Your task to perform on an android device: toggle wifi Image 0: 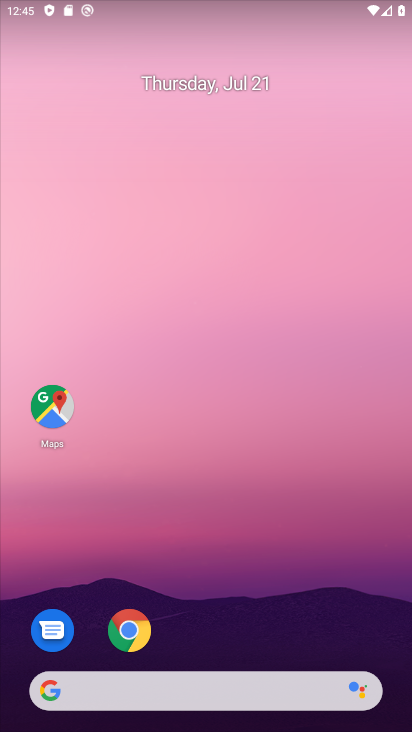
Step 0: drag from (193, 5) to (213, 426)
Your task to perform on an android device: toggle wifi Image 1: 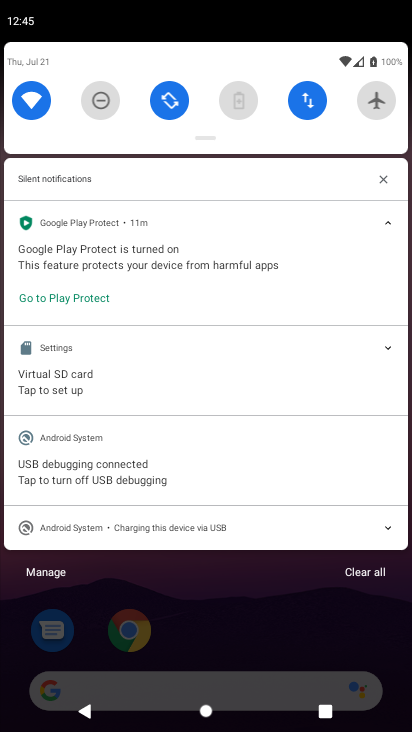
Step 1: click (42, 103)
Your task to perform on an android device: toggle wifi Image 2: 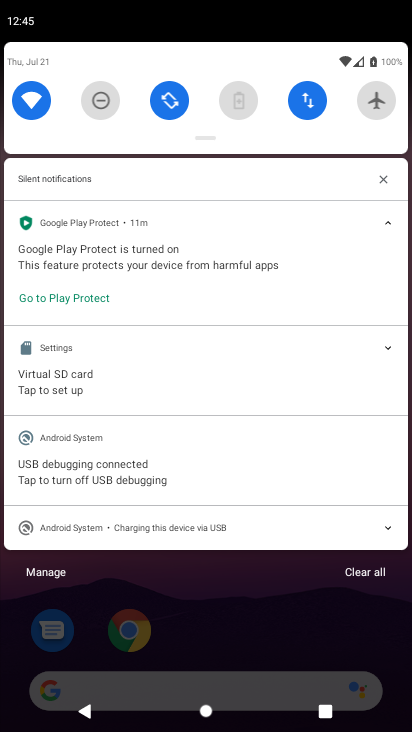
Step 2: click (42, 103)
Your task to perform on an android device: toggle wifi Image 3: 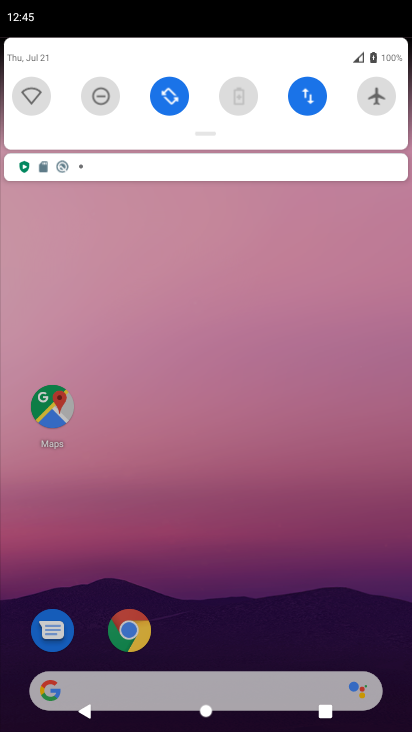
Step 3: click (42, 103)
Your task to perform on an android device: toggle wifi Image 4: 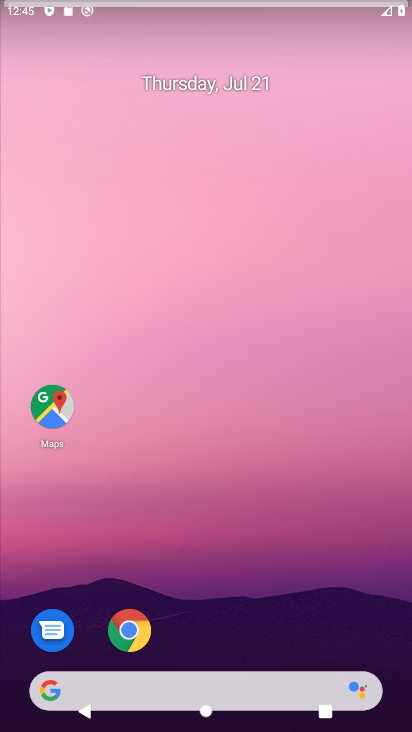
Step 4: click (42, 103)
Your task to perform on an android device: toggle wifi Image 5: 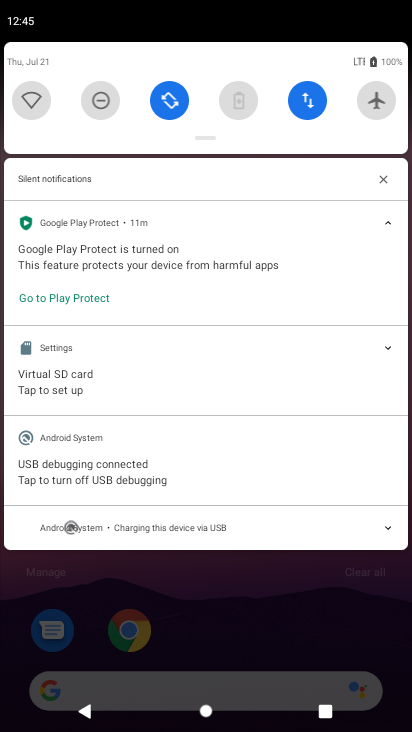
Step 5: click (42, 103)
Your task to perform on an android device: toggle wifi Image 6: 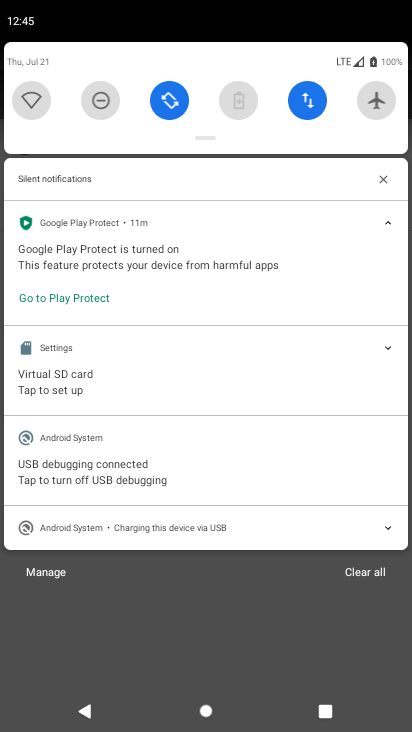
Step 6: task complete